Your task to perform on an android device: Go to accessibility settings Image 0: 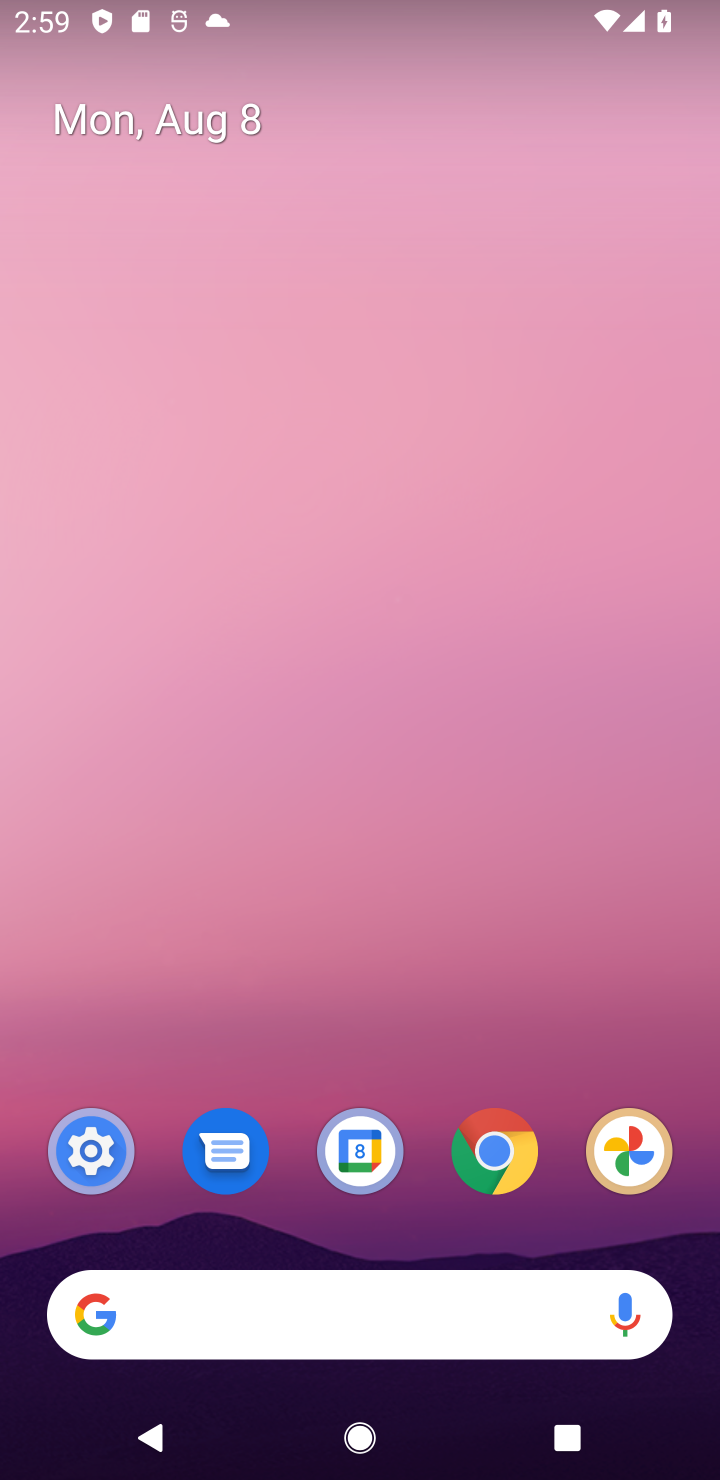
Step 0: click (111, 1171)
Your task to perform on an android device: Go to accessibility settings Image 1: 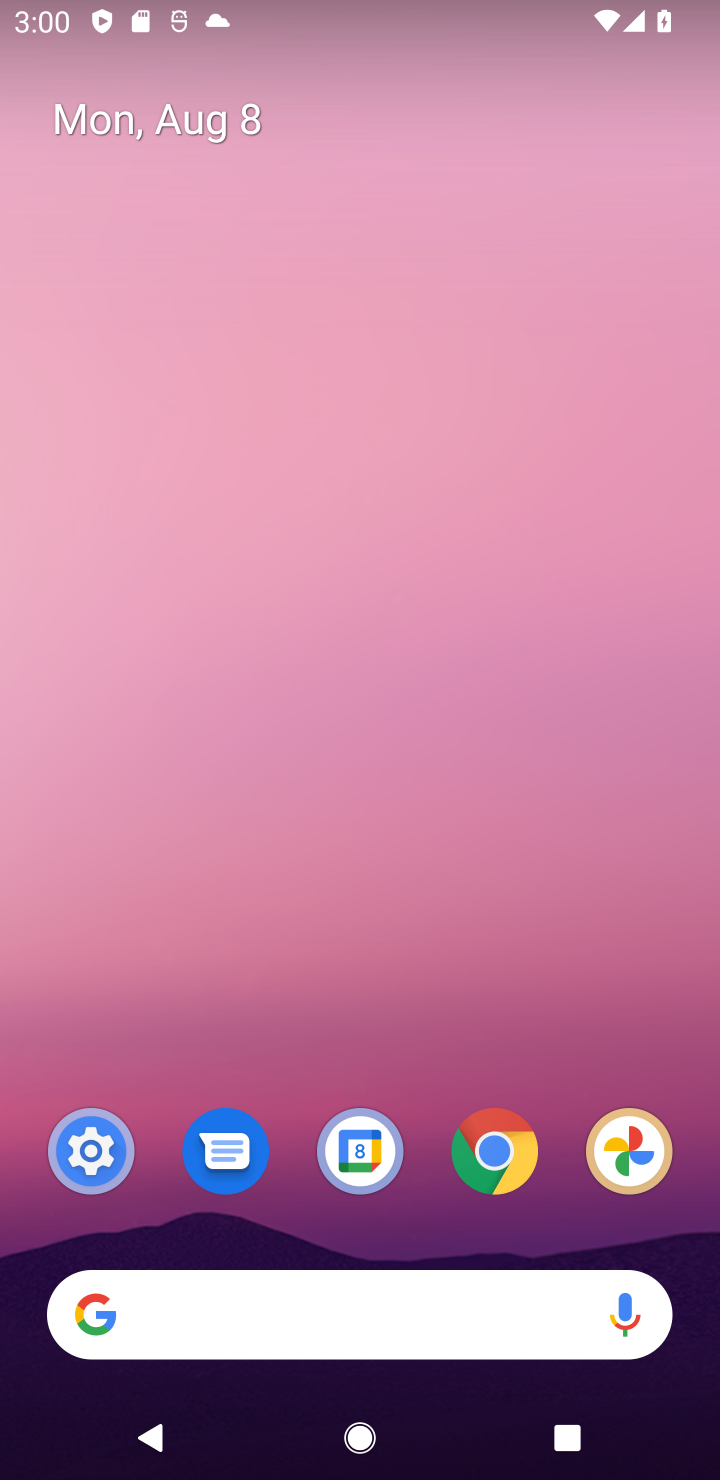
Step 1: drag from (358, 1018) to (345, 717)
Your task to perform on an android device: Go to accessibility settings Image 2: 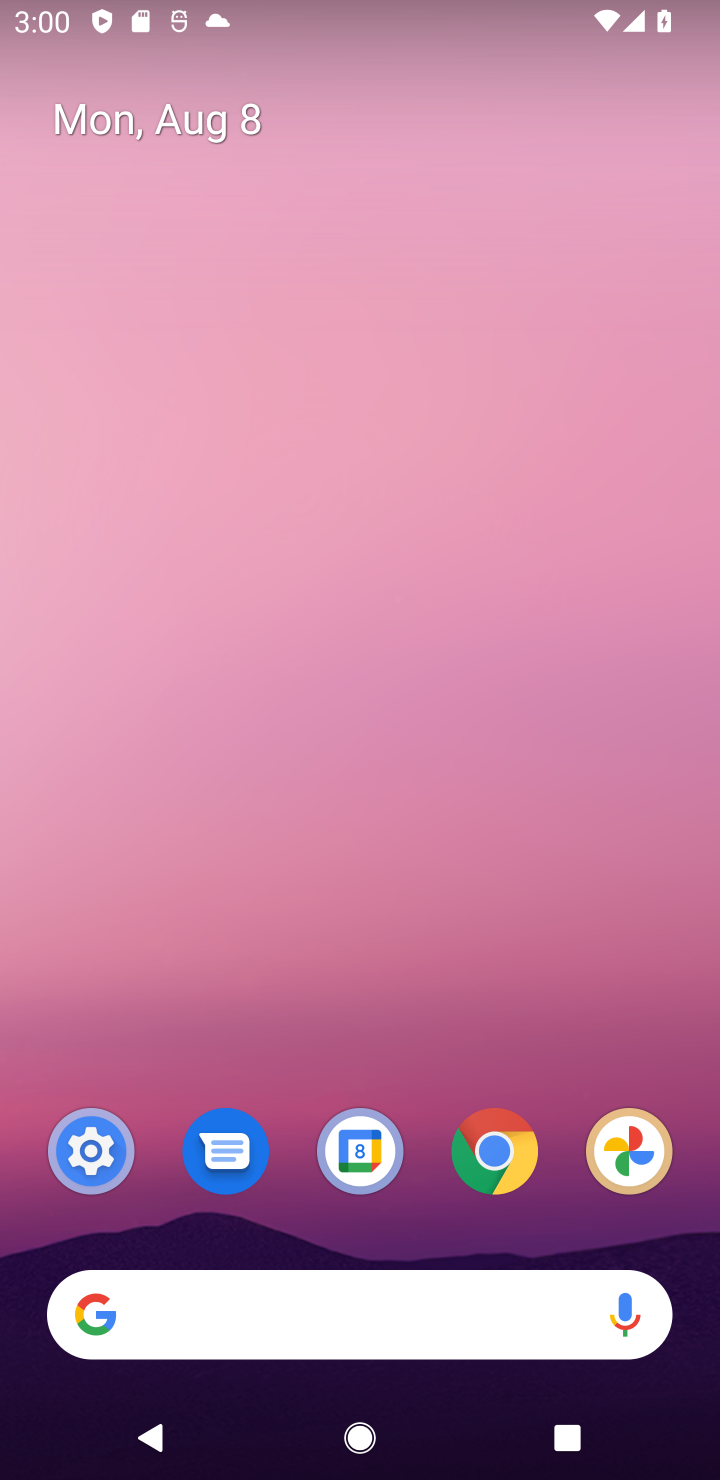
Step 2: click (98, 1162)
Your task to perform on an android device: Go to accessibility settings Image 3: 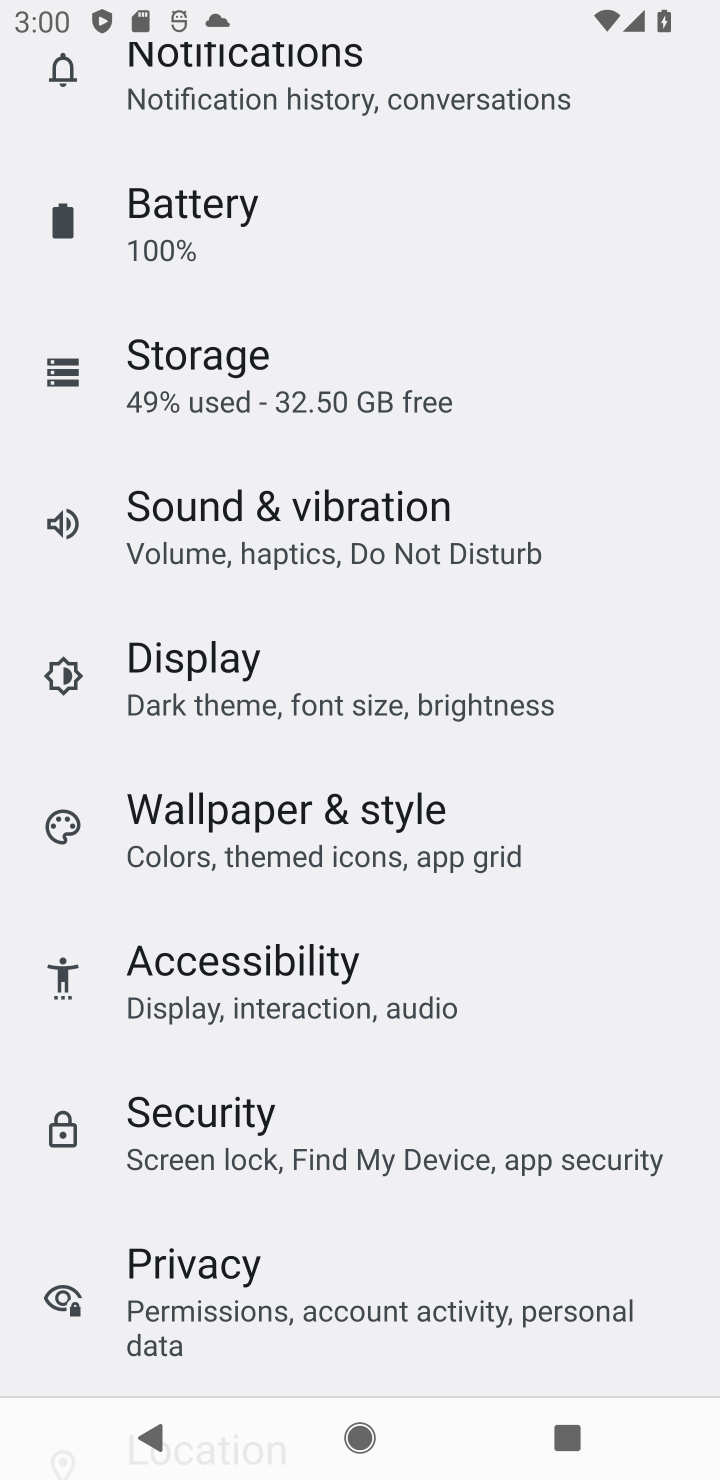
Step 3: drag from (345, 536) to (345, 1202)
Your task to perform on an android device: Go to accessibility settings Image 4: 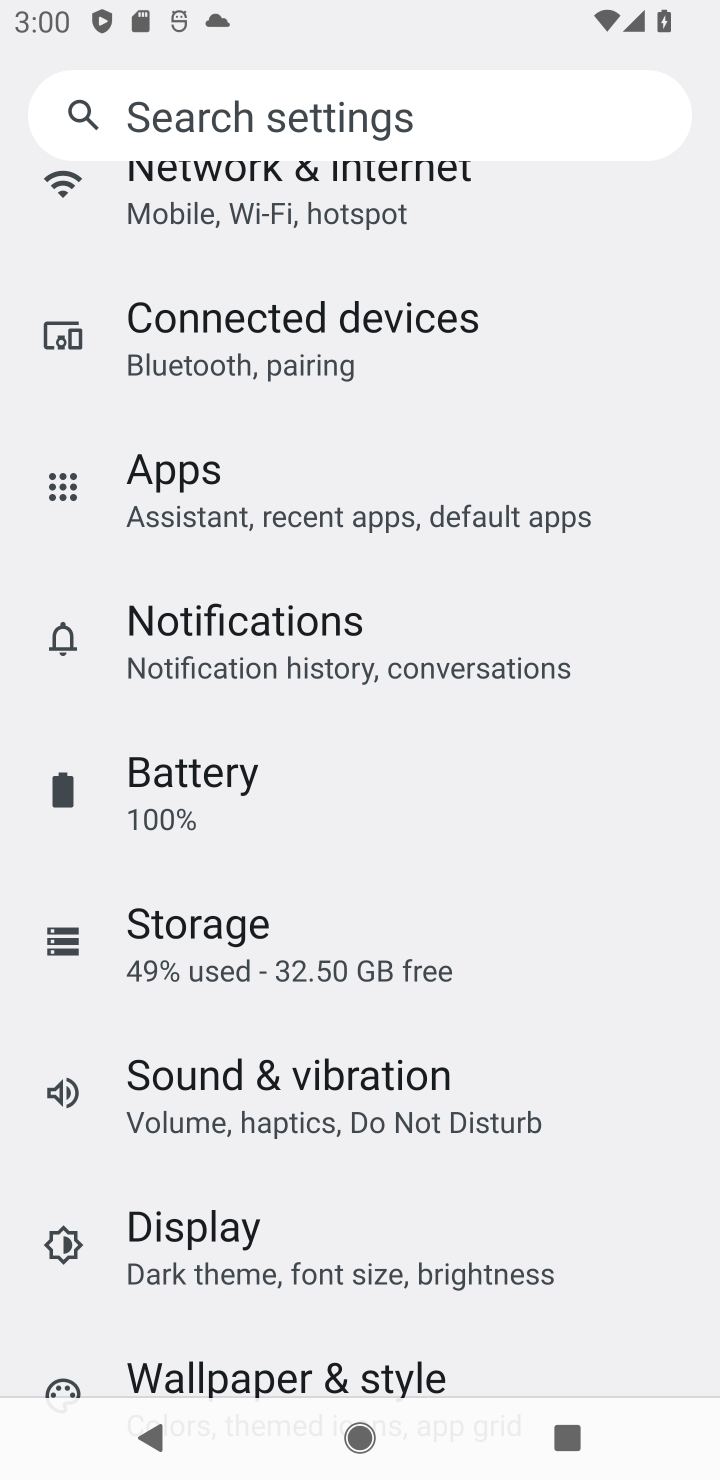
Step 4: drag from (377, 625) to (369, 1143)
Your task to perform on an android device: Go to accessibility settings Image 5: 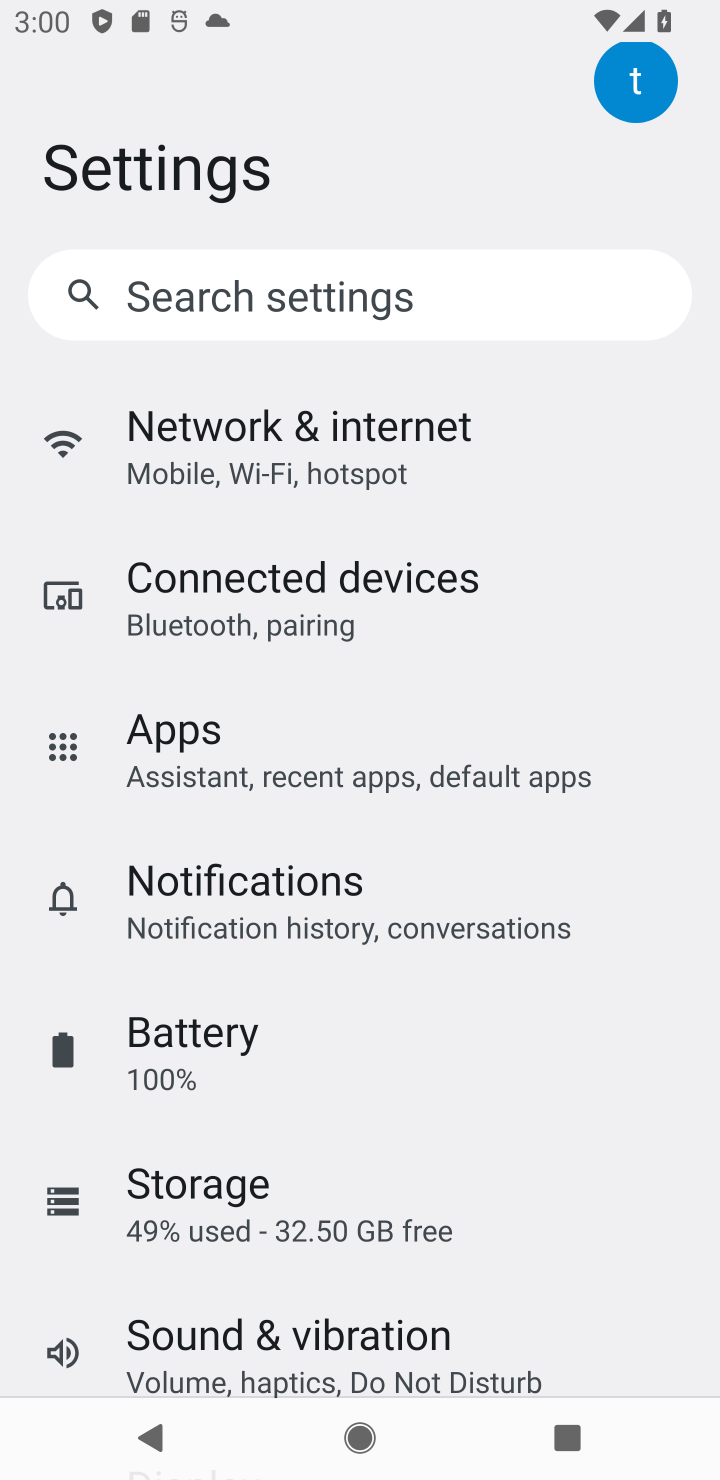
Step 5: drag from (398, 1288) to (435, 501)
Your task to perform on an android device: Go to accessibility settings Image 6: 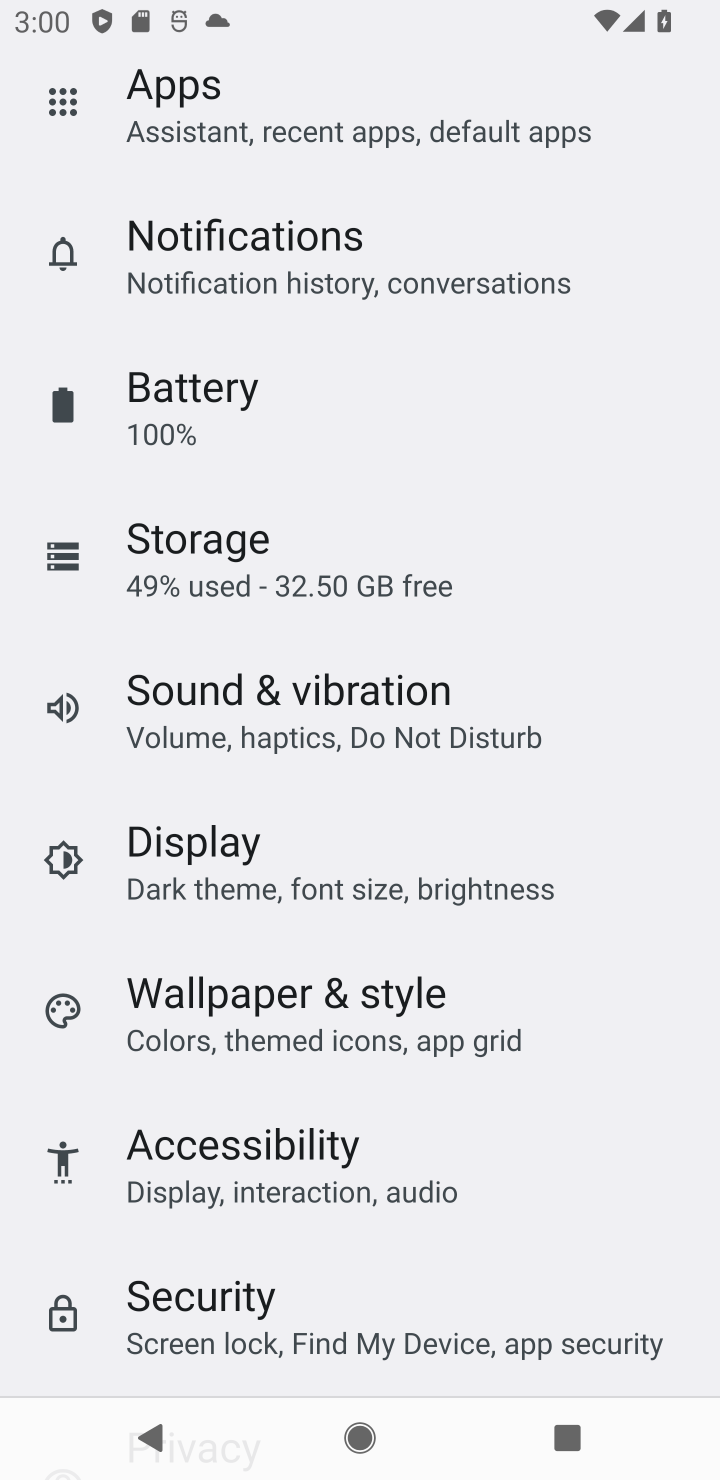
Step 6: click (322, 1126)
Your task to perform on an android device: Go to accessibility settings Image 7: 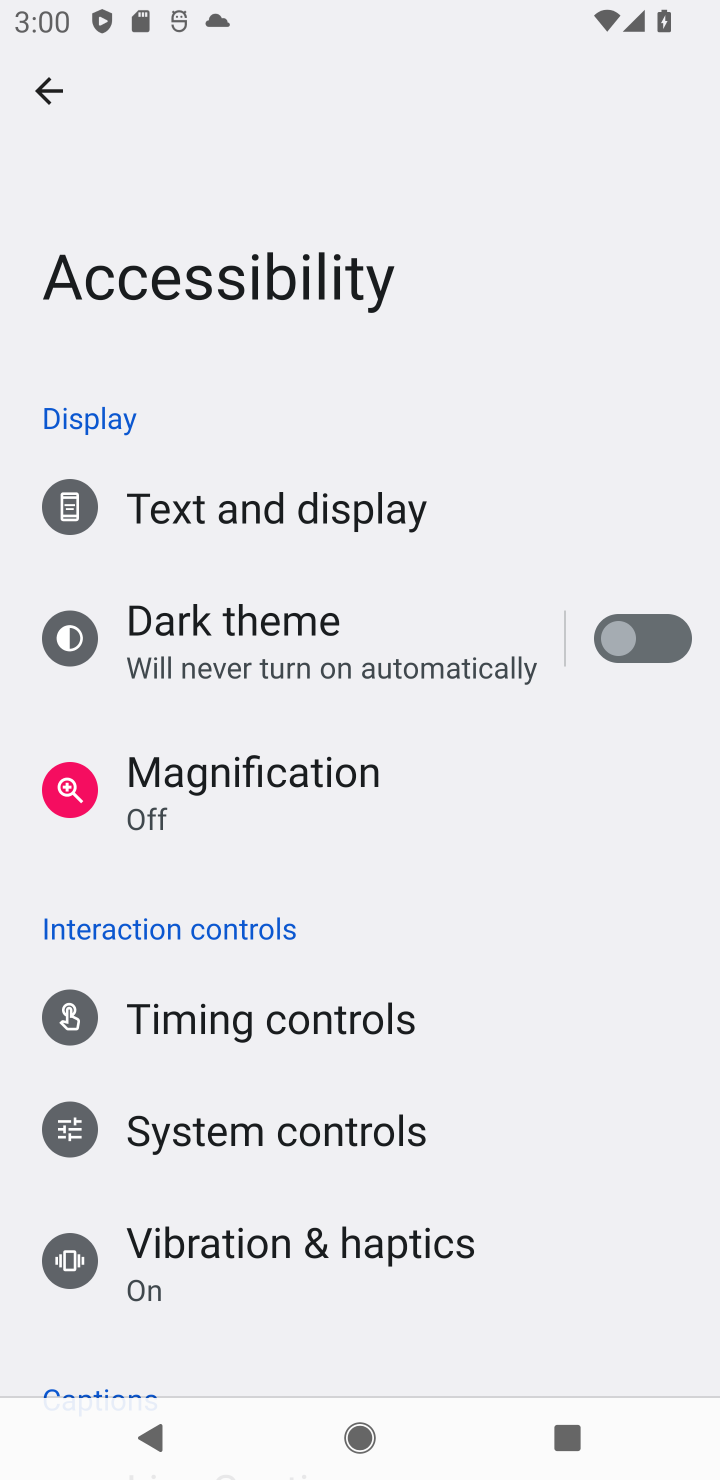
Step 7: task complete